Your task to perform on an android device: read, delete, or share a saved page in the chrome app Image 0: 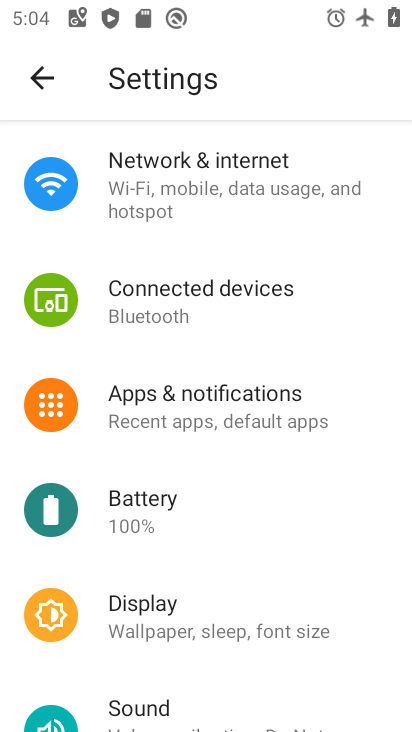
Step 0: press back button
Your task to perform on an android device: read, delete, or share a saved page in the chrome app Image 1: 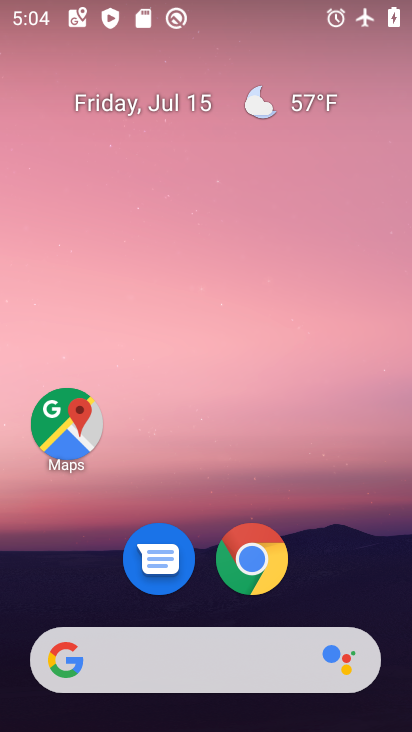
Step 1: click (248, 568)
Your task to perform on an android device: read, delete, or share a saved page in the chrome app Image 2: 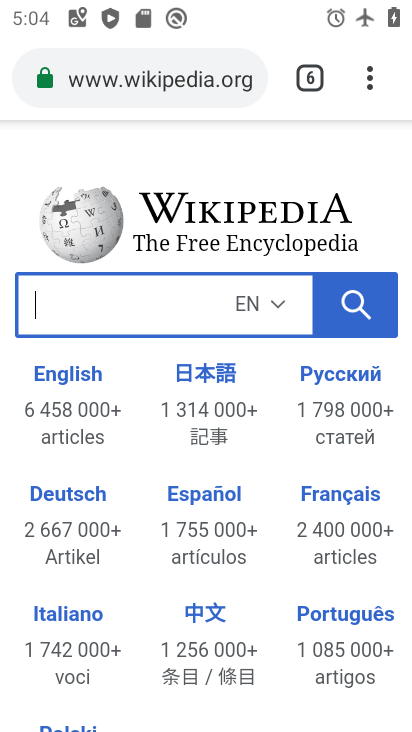
Step 2: drag from (367, 82) to (113, 504)
Your task to perform on an android device: read, delete, or share a saved page in the chrome app Image 3: 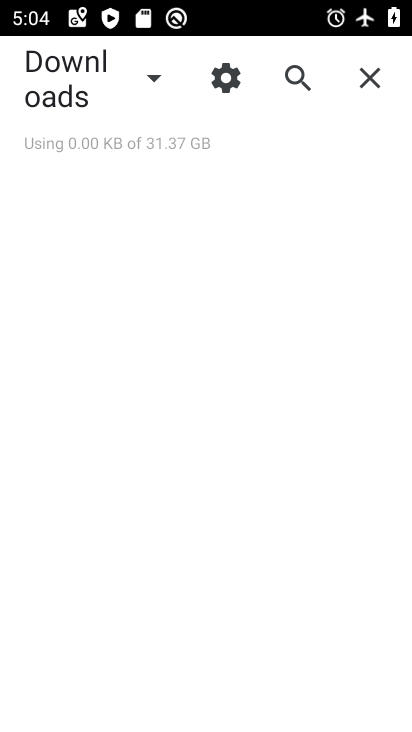
Step 3: click (150, 73)
Your task to perform on an android device: read, delete, or share a saved page in the chrome app Image 4: 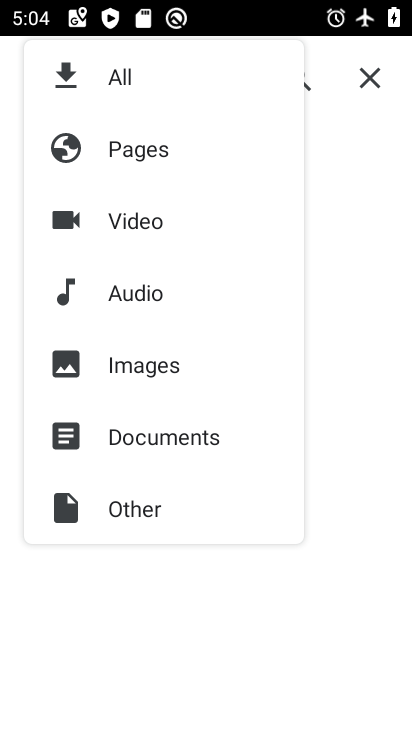
Step 4: click (164, 150)
Your task to perform on an android device: read, delete, or share a saved page in the chrome app Image 5: 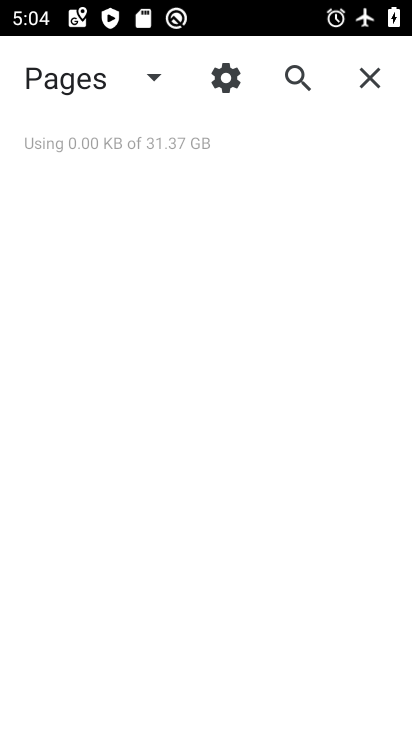
Step 5: task complete